Your task to perform on an android device: turn on notifications settings in the gmail app Image 0: 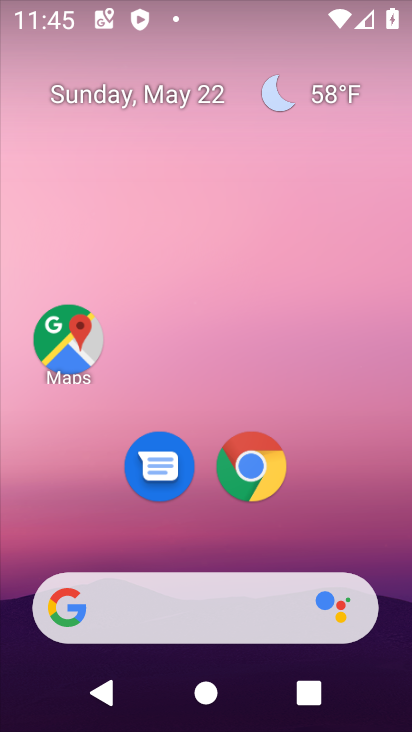
Step 0: drag from (258, 514) to (262, 34)
Your task to perform on an android device: turn on notifications settings in the gmail app Image 1: 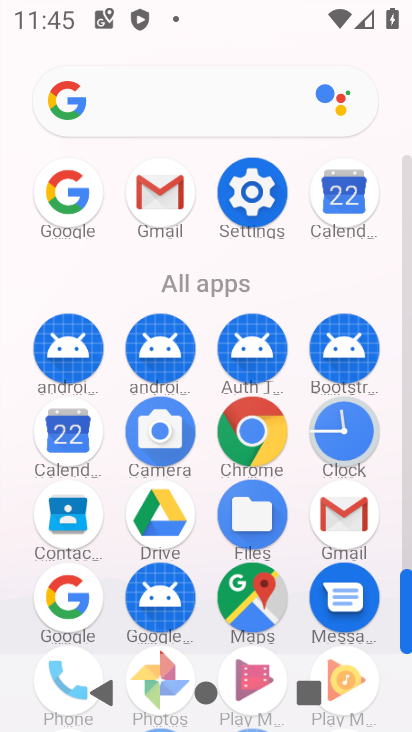
Step 1: click (167, 216)
Your task to perform on an android device: turn on notifications settings in the gmail app Image 2: 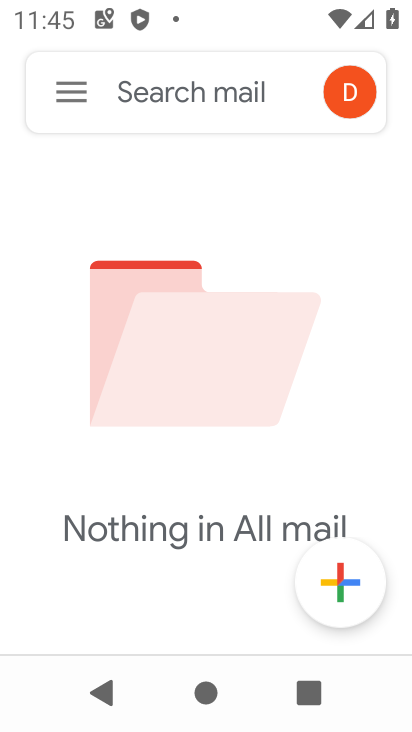
Step 2: click (50, 86)
Your task to perform on an android device: turn on notifications settings in the gmail app Image 3: 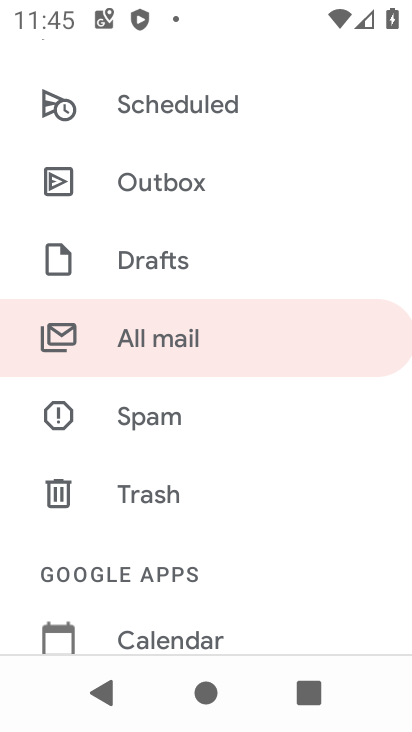
Step 3: drag from (185, 495) to (197, 36)
Your task to perform on an android device: turn on notifications settings in the gmail app Image 4: 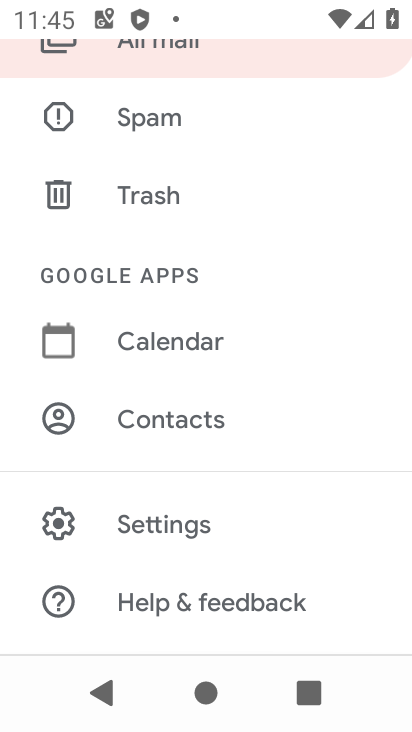
Step 4: click (142, 493)
Your task to perform on an android device: turn on notifications settings in the gmail app Image 5: 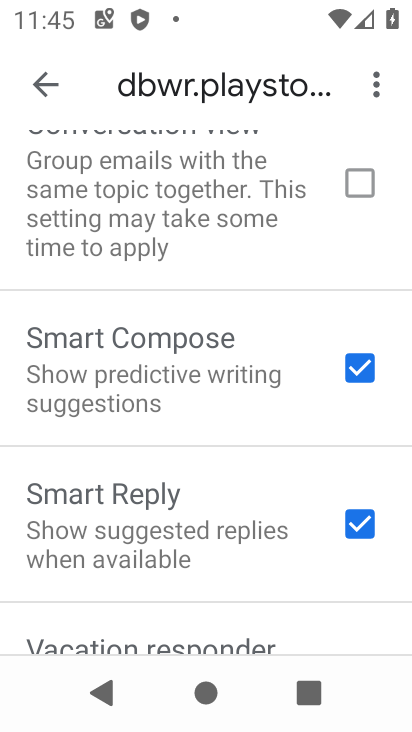
Step 5: drag from (178, 252) to (187, 575)
Your task to perform on an android device: turn on notifications settings in the gmail app Image 6: 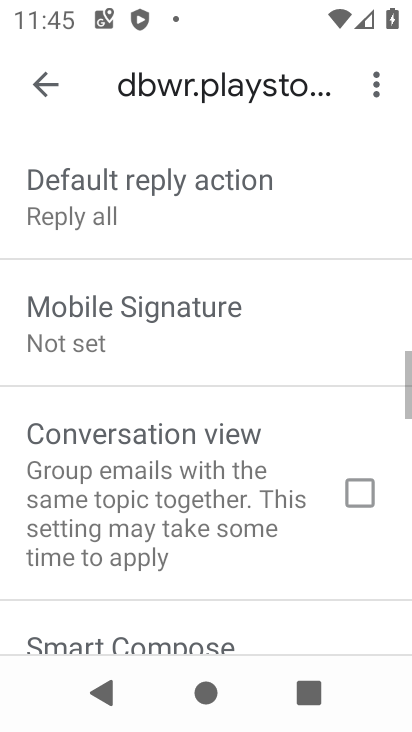
Step 6: drag from (172, 253) to (207, 572)
Your task to perform on an android device: turn on notifications settings in the gmail app Image 7: 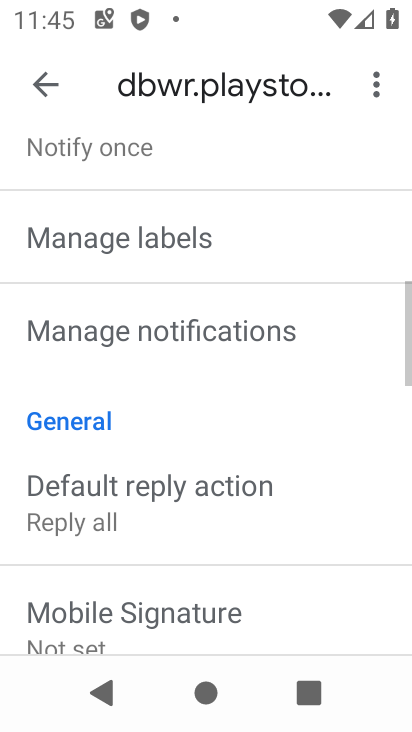
Step 7: drag from (140, 250) to (170, 565)
Your task to perform on an android device: turn on notifications settings in the gmail app Image 8: 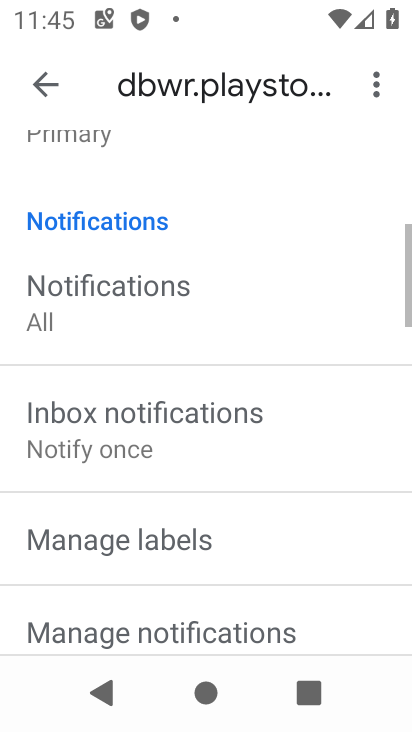
Step 8: click (72, 307)
Your task to perform on an android device: turn on notifications settings in the gmail app Image 9: 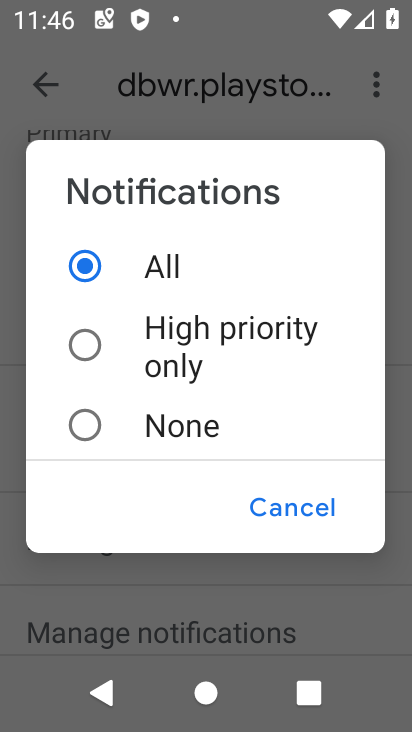
Step 9: task complete